Your task to perform on an android device: create a new album in the google photos Image 0: 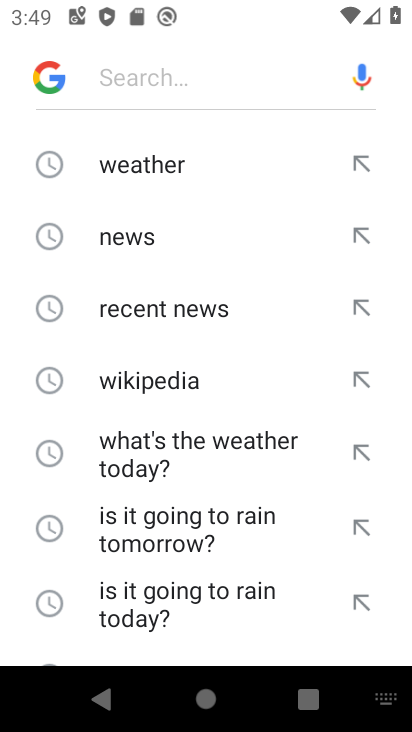
Step 0: press home button
Your task to perform on an android device: create a new album in the google photos Image 1: 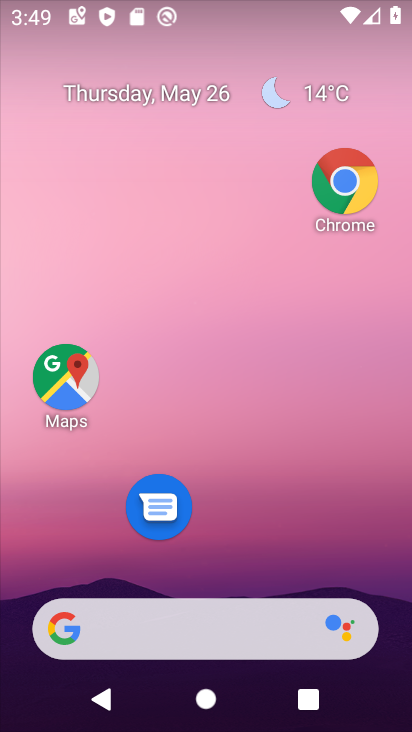
Step 1: drag from (315, 535) to (347, 103)
Your task to perform on an android device: create a new album in the google photos Image 2: 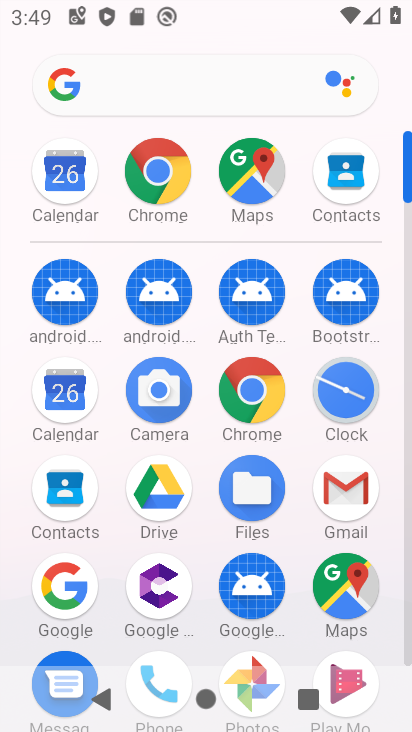
Step 2: drag from (295, 237) to (334, 66)
Your task to perform on an android device: create a new album in the google photos Image 3: 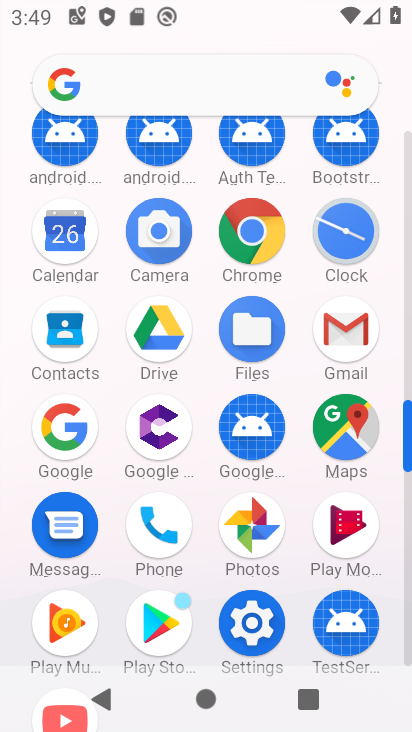
Step 3: click (255, 519)
Your task to perform on an android device: create a new album in the google photos Image 4: 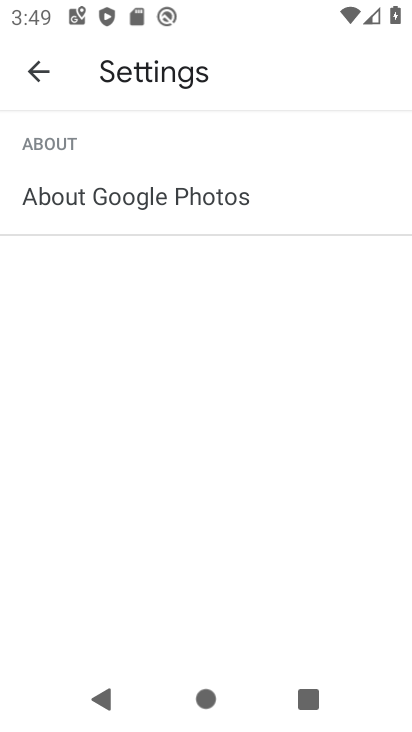
Step 4: click (32, 65)
Your task to perform on an android device: create a new album in the google photos Image 5: 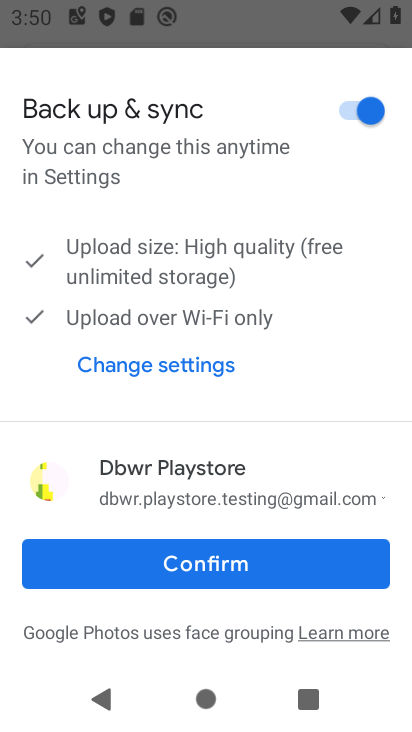
Step 5: click (156, 548)
Your task to perform on an android device: create a new album in the google photos Image 6: 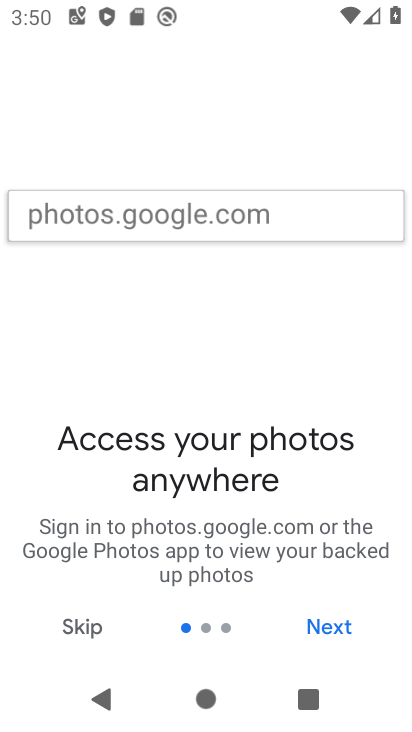
Step 6: click (332, 615)
Your task to perform on an android device: create a new album in the google photos Image 7: 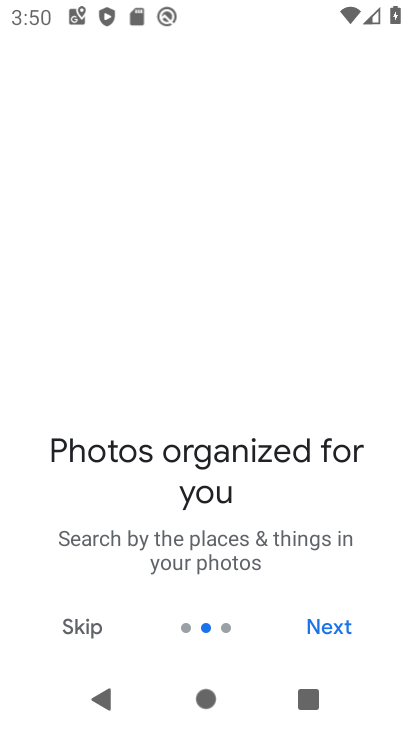
Step 7: click (332, 615)
Your task to perform on an android device: create a new album in the google photos Image 8: 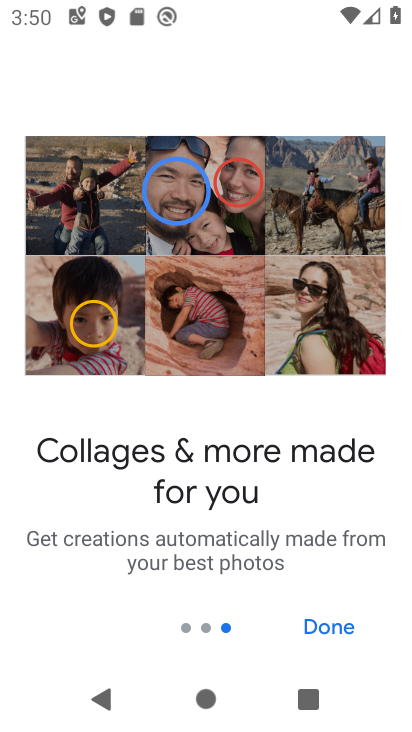
Step 8: click (332, 615)
Your task to perform on an android device: create a new album in the google photos Image 9: 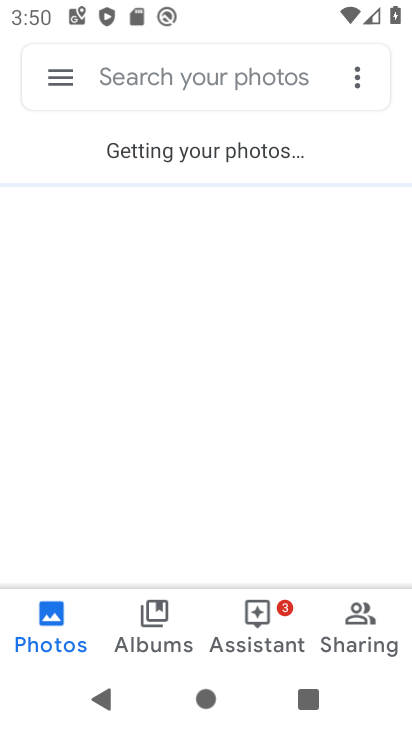
Step 9: click (49, 606)
Your task to perform on an android device: create a new album in the google photos Image 10: 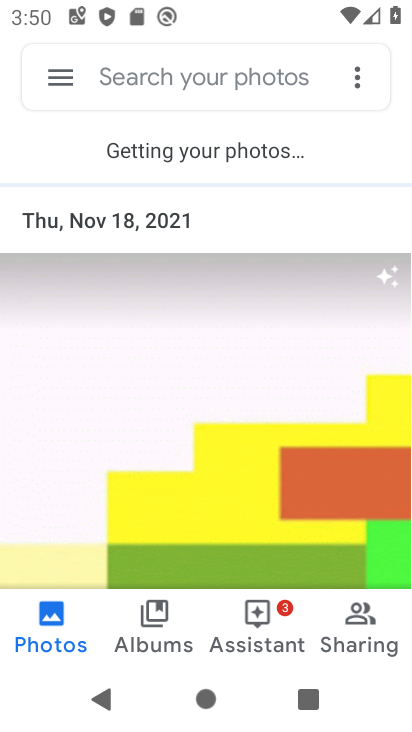
Step 10: drag from (155, 536) to (222, 231)
Your task to perform on an android device: create a new album in the google photos Image 11: 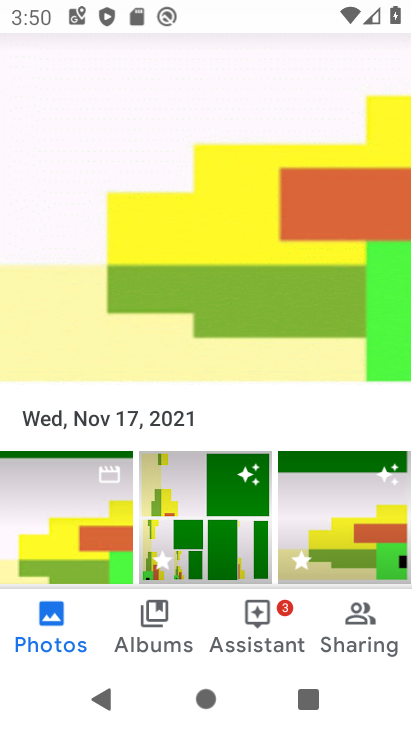
Step 11: click (69, 514)
Your task to perform on an android device: create a new album in the google photos Image 12: 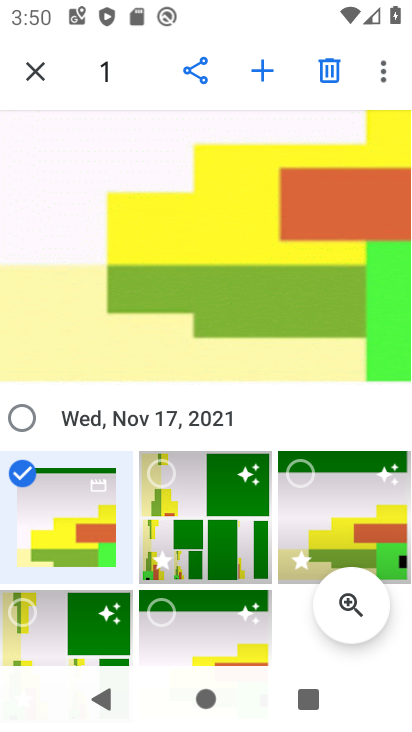
Step 12: click (151, 471)
Your task to perform on an android device: create a new album in the google photos Image 13: 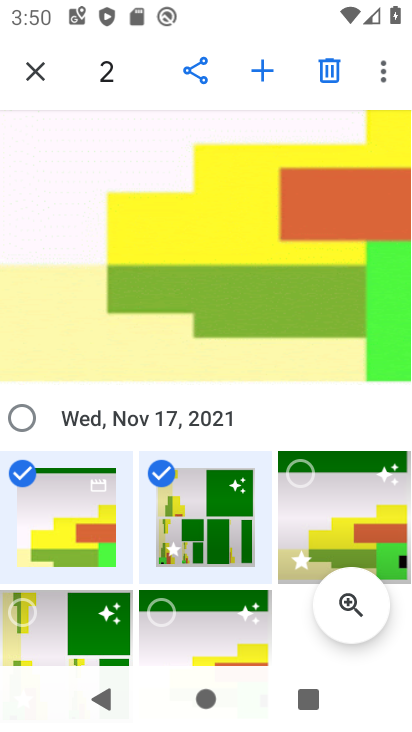
Step 13: click (255, 66)
Your task to perform on an android device: create a new album in the google photos Image 14: 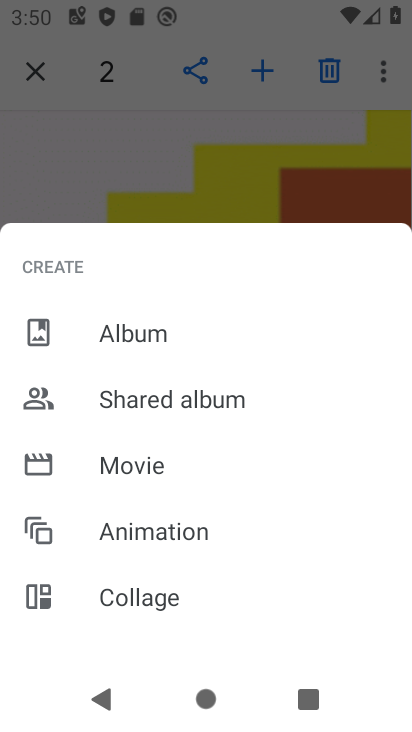
Step 14: click (116, 332)
Your task to perform on an android device: create a new album in the google photos Image 15: 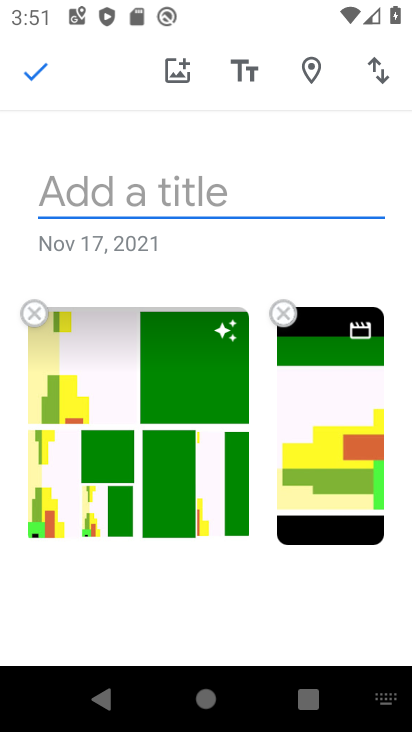
Step 15: type "jjhg"
Your task to perform on an android device: create a new album in the google photos Image 16: 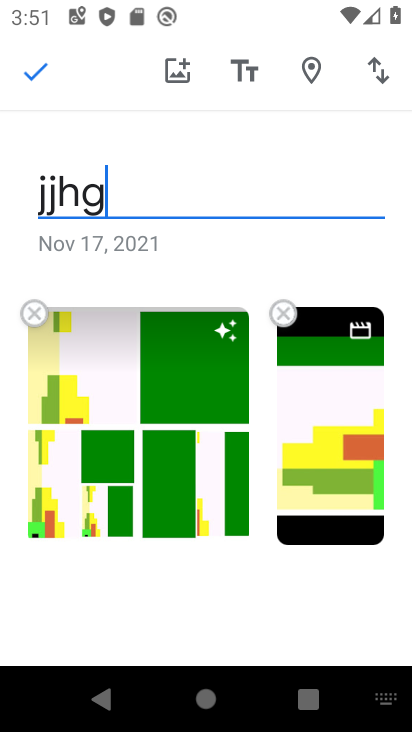
Step 16: click (40, 72)
Your task to perform on an android device: create a new album in the google photos Image 17: 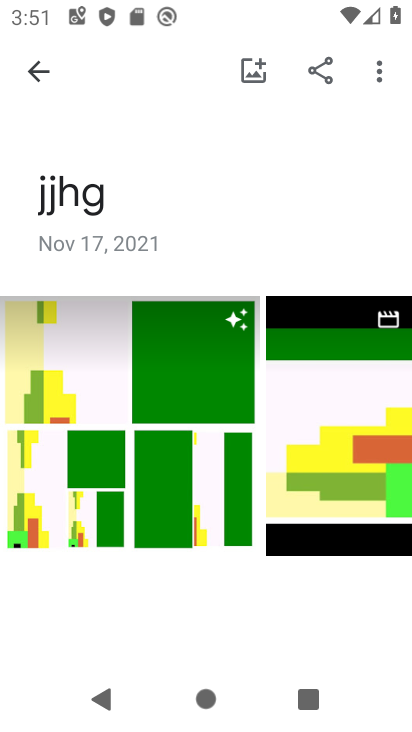
Step 17: task complete